Your task to perform on an android device: Open Reddit.com Image 0: 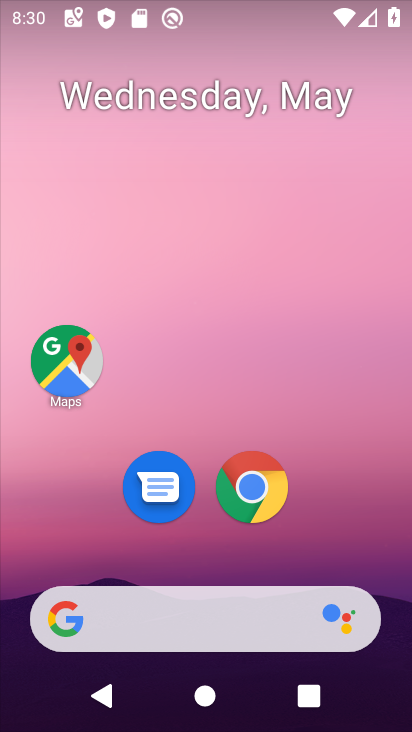
Step 0: press home button
Your task to perform on an android device: Open Reddit.com Image 1: 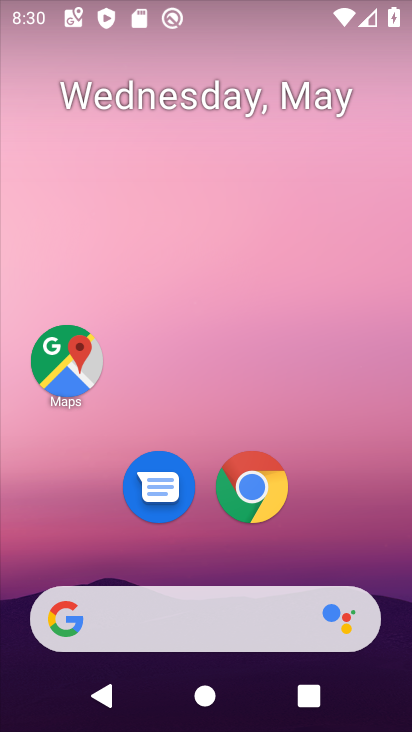
Step 1: click (248, 479)
Your task to perform on an android device: Open Reddit.com Image 2: 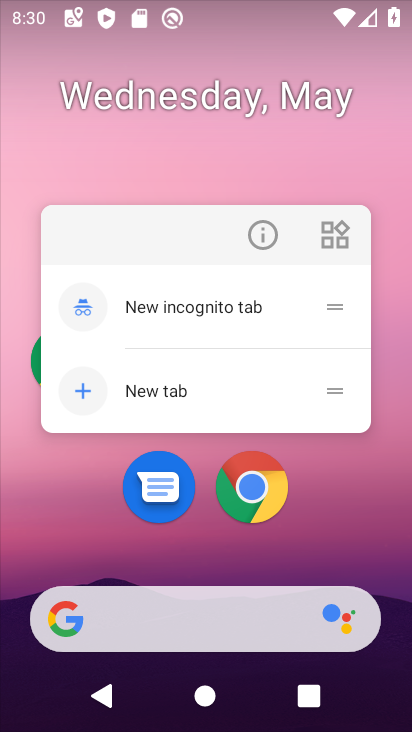
Step 2: click (249, 481)
Your task to perform on an android device: Open Reddit.com Image 3: 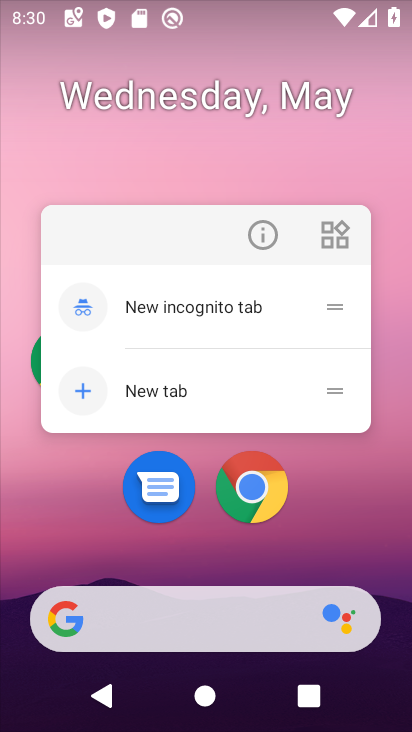
Step 3: click (319, 509)
Your task to perform on an android device: Open Reddit.com Image 4: 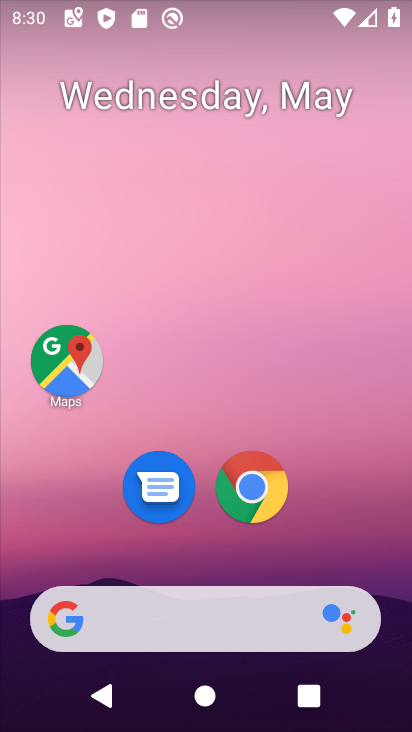
Step 4: click (248, 474)
Your task to perform on an android device: Open Reddit.com Image 5: 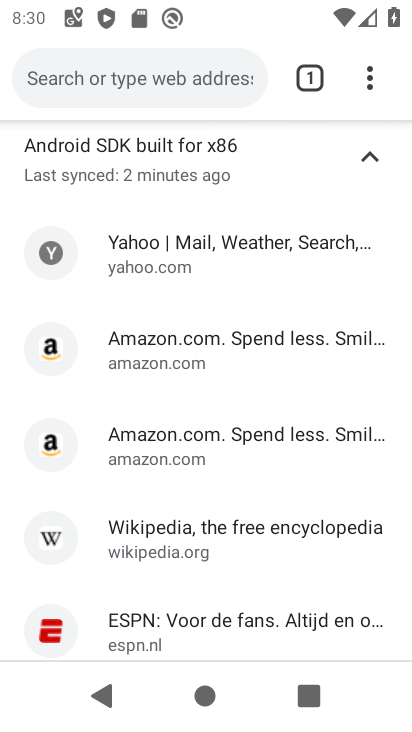
Step 5: click (312, 77)
Your task to perform on an android device: Open Reddit.com Image 6: 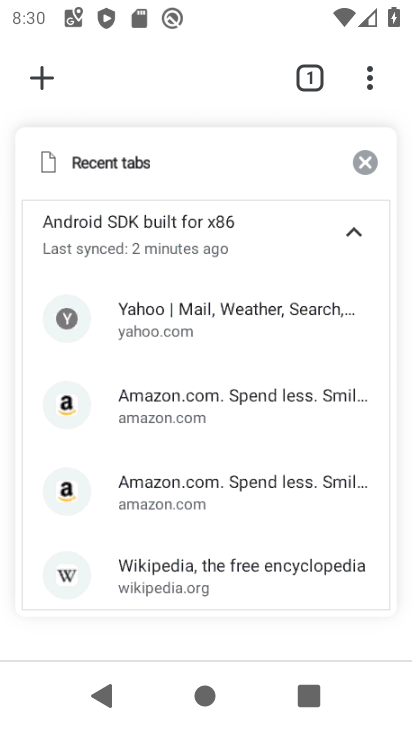
Step 6: click (366, 160)
Your task to perform on an android device: Open Reddit.com Image 7: 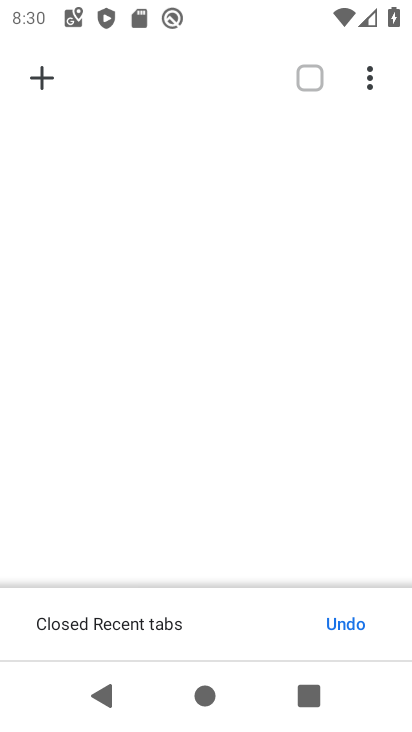
Step 7: click (55, 82)
Your task to perform on an android device: Open Reddit.com Image 8: 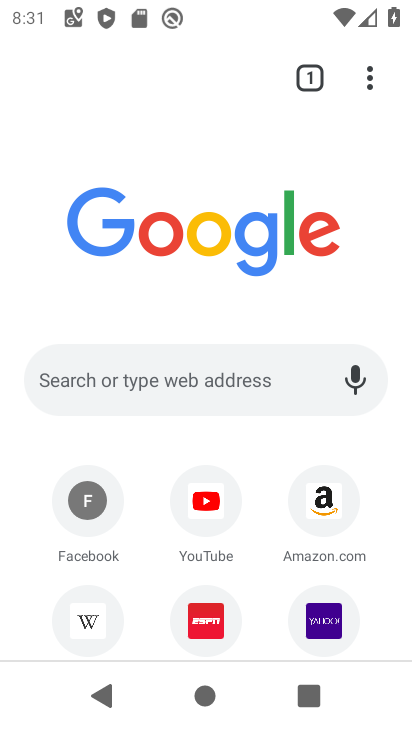
Step 8: click (159, 383)
Your task to perform on an android device: Open Reddit.com Image 9: 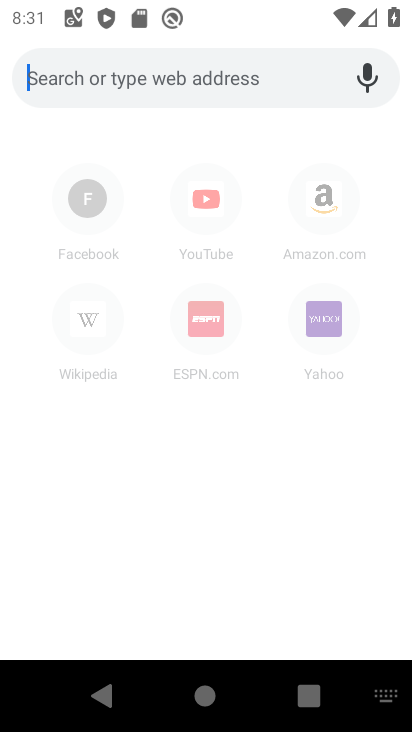
Step 9: type "reddit"
Your task to perform on an android device: Open Reddit.com Image 10: 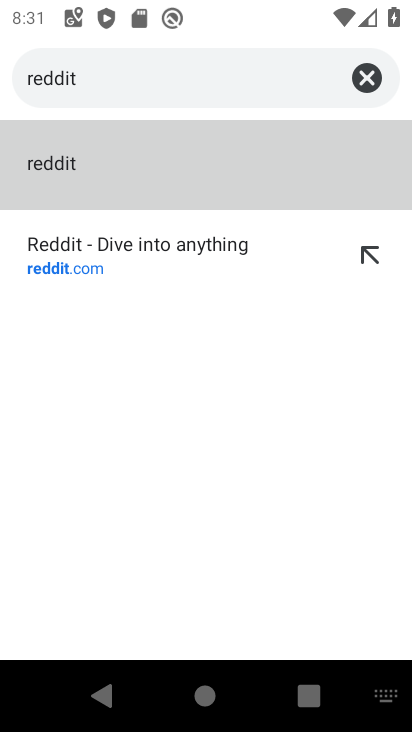
Step 10: click (127, 264)
Your task to perform on an android device: Open Reddit.com Image 11: 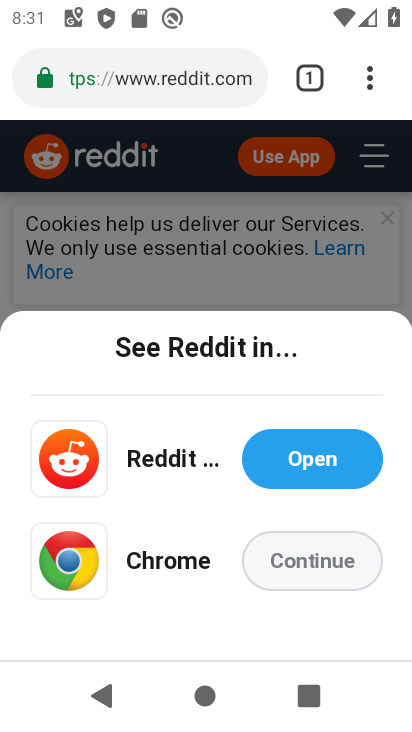
Step 11: click (325, 556)
Your task to perform on an android device: Open Reddit.com Image 12: 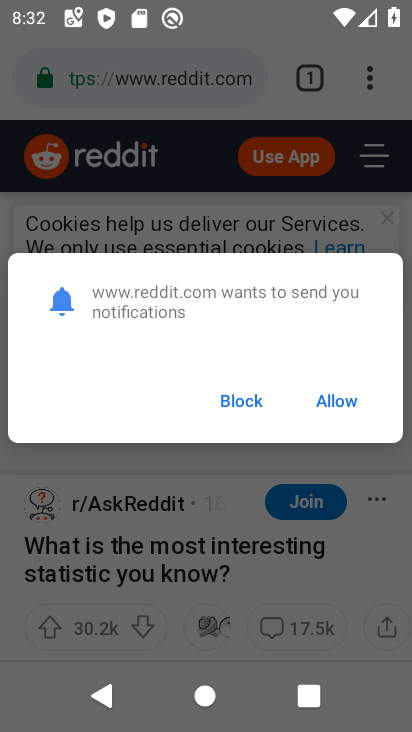
Step 12: click (356, 399)
Your task to perform on an android device: Open Reddit.com Image 13: 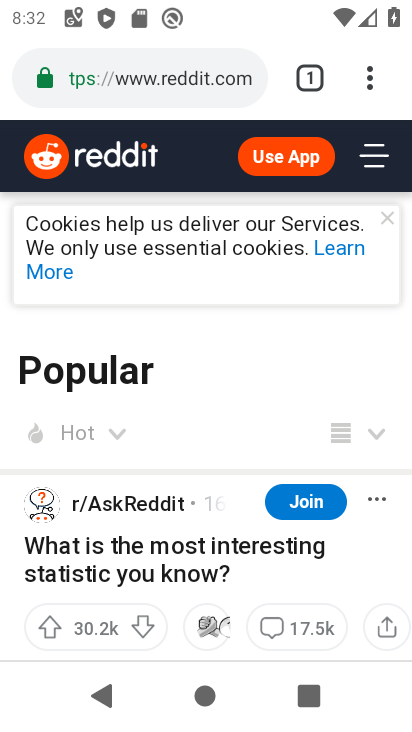
Step 13: drag from (190, 528) to (195, 159)
Your task to perform on an android device: Open Reddit.com Image 14: 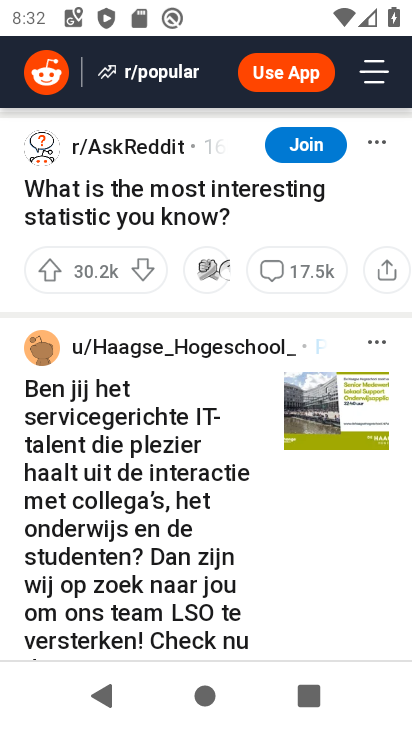
Step 14: click (256, 349)
Your task to perform on an android device: Open Reddit.com Image 15: 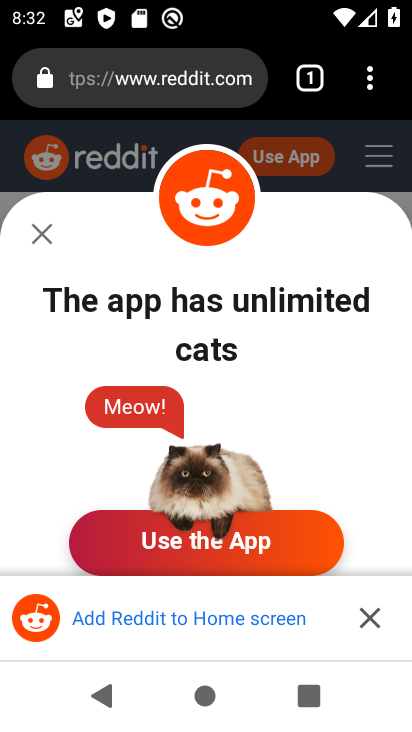
Step 15: task complete